Your task to perform on an android device: show emergency info Image 0: 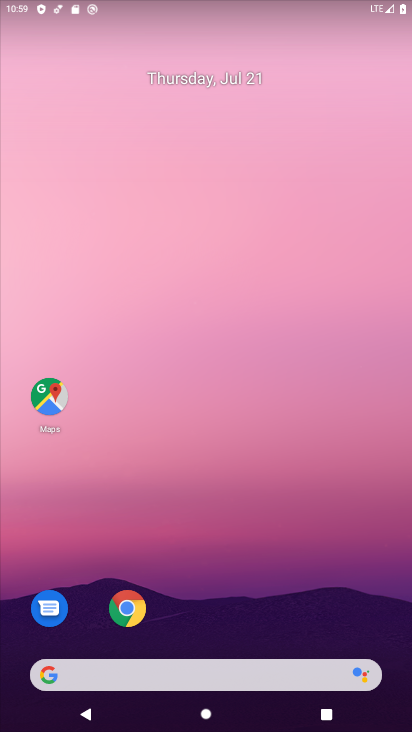
Step 0: drag from (205, 593) to (215, 35)
Your task to perform on an android device: show emergency info Image 1: 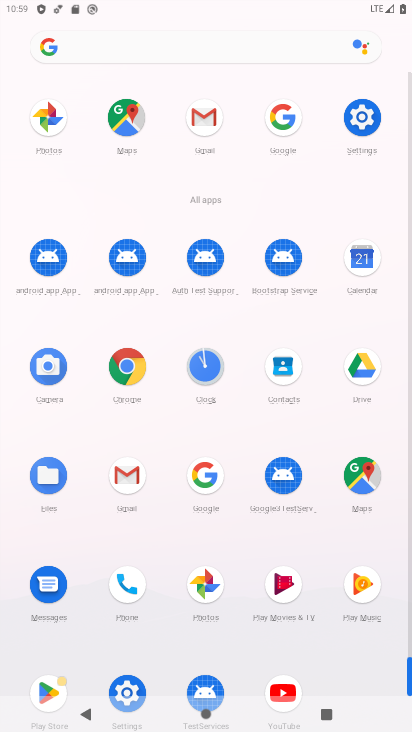
Step 1: click (373, 121)
Your task to perform on an android device: show emergency info Image 2: 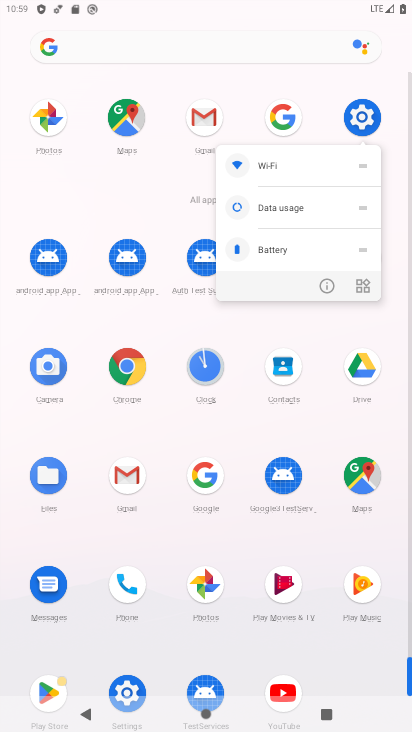
Step 2: click (333, 282)
Your task to perform on an android device: show emergency info Image 3: 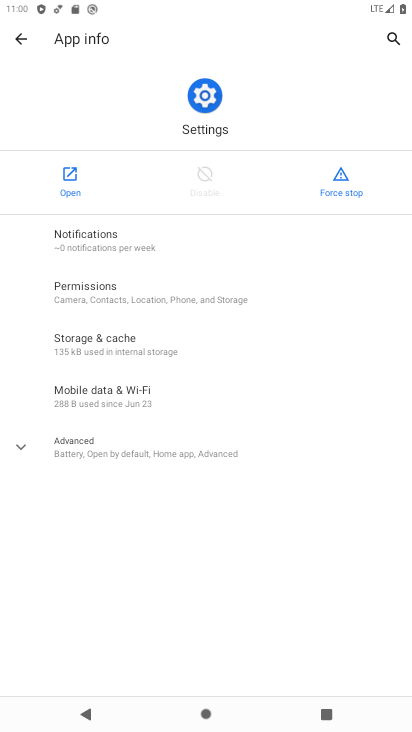
Step 3: click (82, 175)
Your task to perform on an android device: show emergency info Image 4: 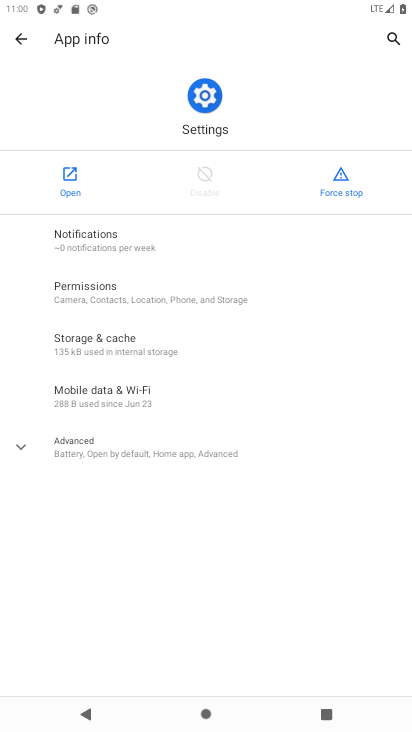
Step 4: click (82, 175)
Your task to perform on an android device: show emergency info Image 5: 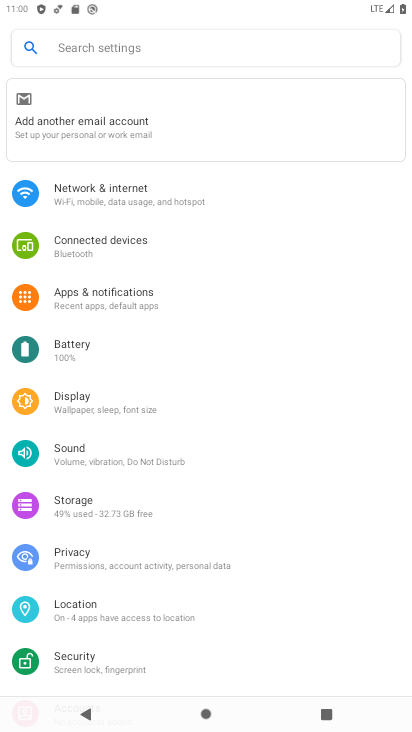
Step 5: drag from (174, 663) to (262, 91)
Your task to perform on an android device: show emergency info Image 6: 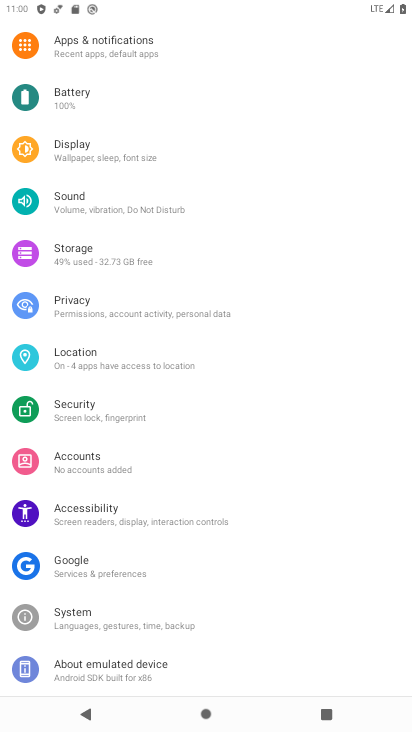
Step 6: click (125, 685)
Your task to perform on an android device: show emergency info Image 7: 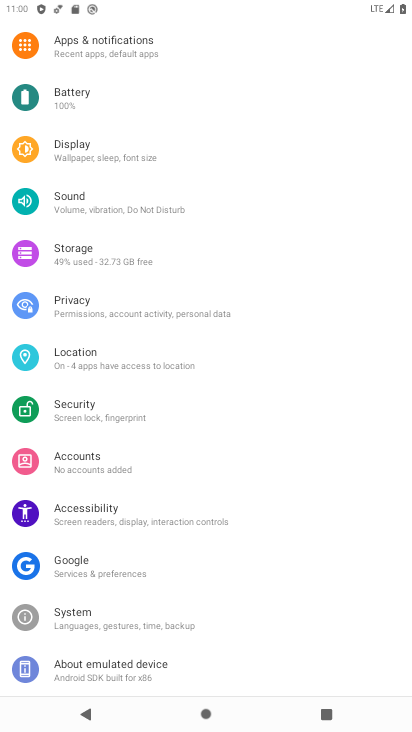
Step 7: click (126, 684)
Your task to perform on an android device: show emergency info Image 8: 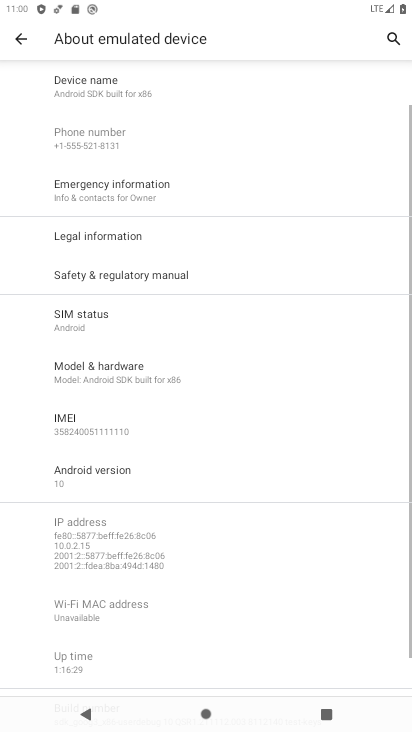
Step 8: drag from (221, 522) to (243, 281)
Your task to perform on an android device: show emergency info Image 9: 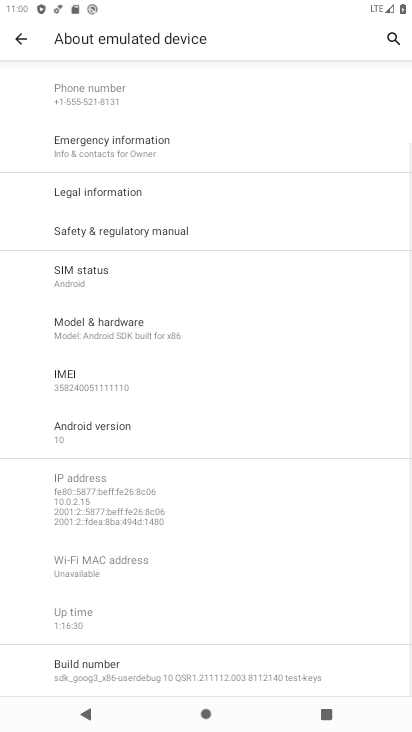
Step 9: drag from (189, 192) to (126, 662)
Your task to perform on an android device: show emergency info Image 10: 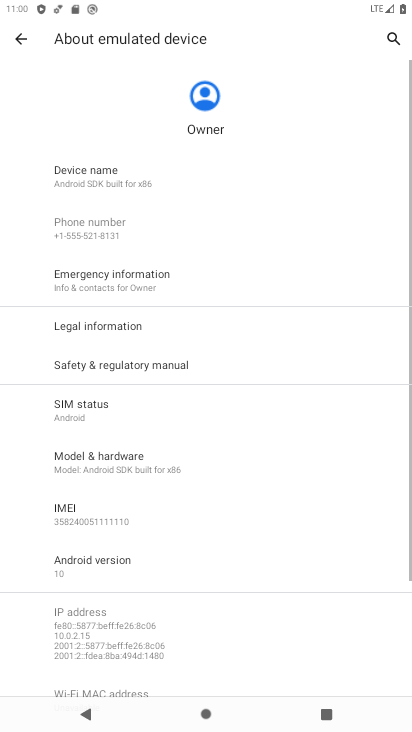
Step 10: click (174, 284)
Your task to perform on an android device: show emergency info Image 11: 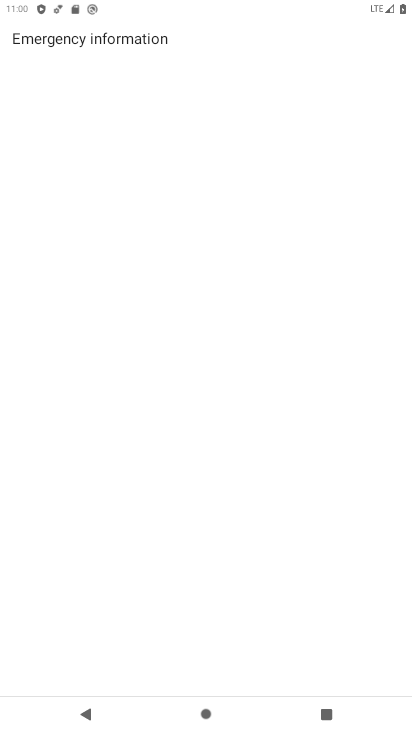
Step 11: task complete